Your task to perform on an android device: Open Yahoo.com Image 0: 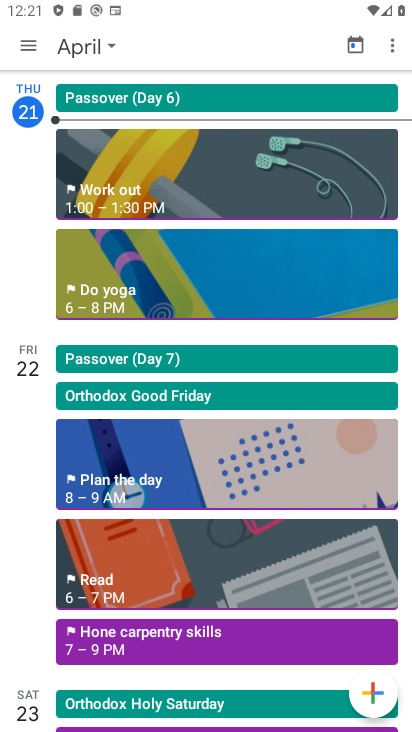
Step 0: press home button
Your task to perform on an android device: Open Yahoo.com Image 1: 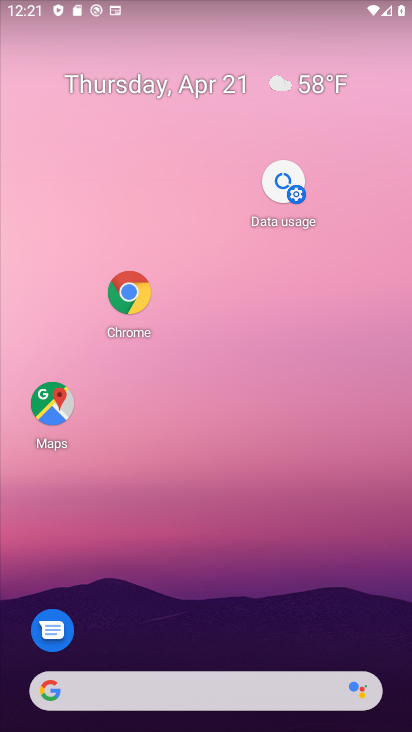
Step 1: drag from (157, 669) to (151, 361)
Your task to perform on an android device: Open Yahoo.com Image 2: 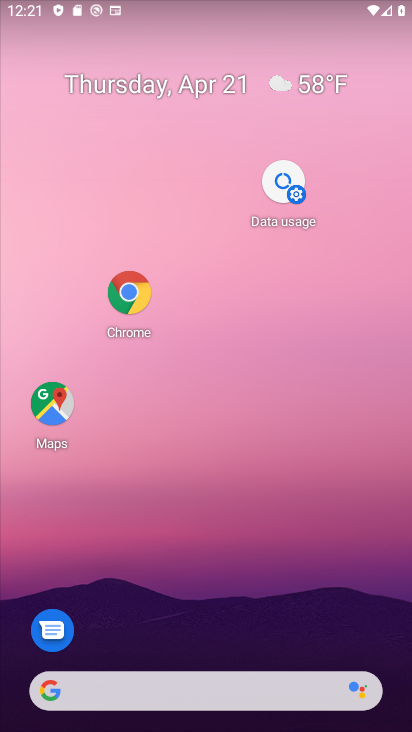
Step 2: drag from (293, 538) to (249, 175)
Your task to perform on an android device: Open Yahoo.com Image 3: 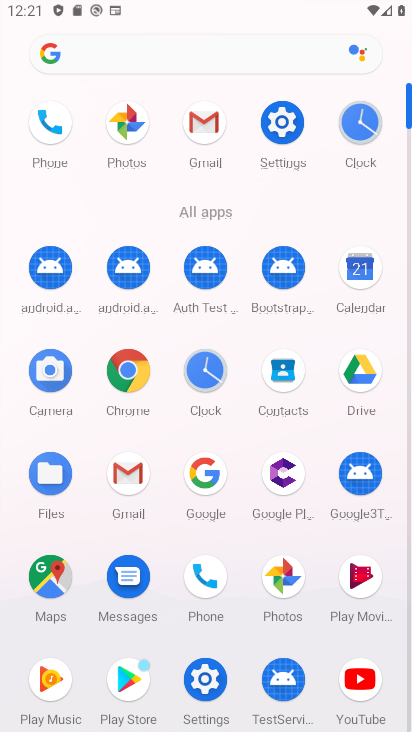
Step 3: click (124, 371)
Your task to perform on an android device: Open Yahoo.com Image 4: 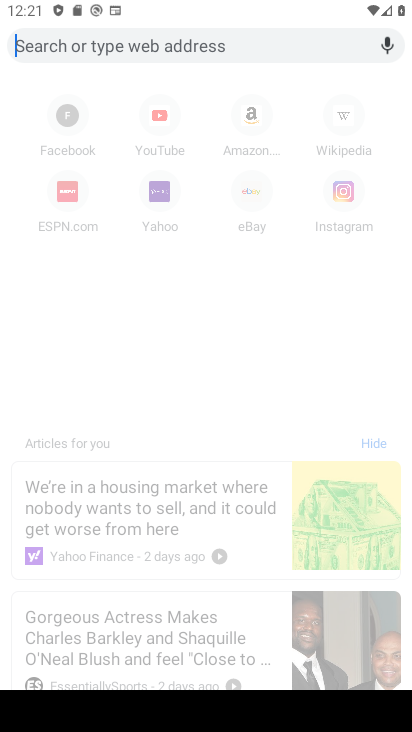
Step 4: click (155, 200)
Your task to perform on an android device: Open Yahoo.com Image 5: 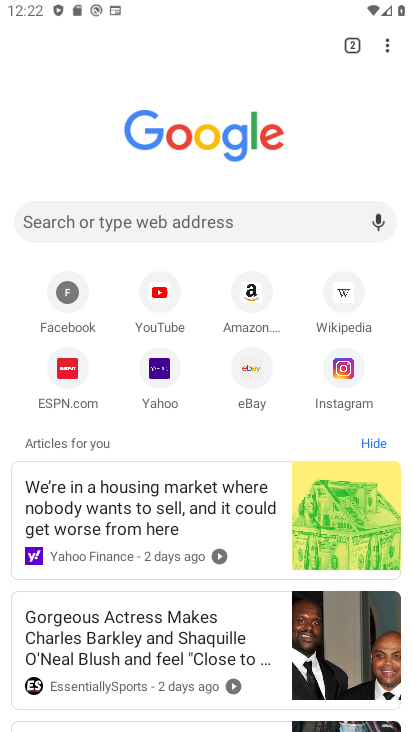
Step 5: click (158, 377)
Your task to perform on an android device: Open Yahoo.com Image 6: 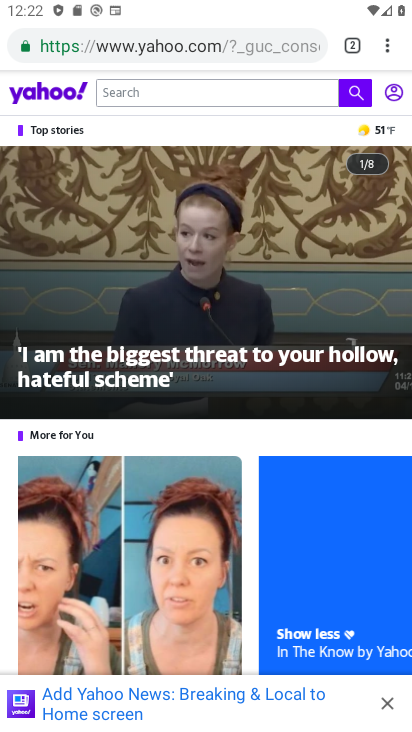
Step 6: task complete